Your task to perform on an android device: Show the shopping cart on walmart. Image 0: 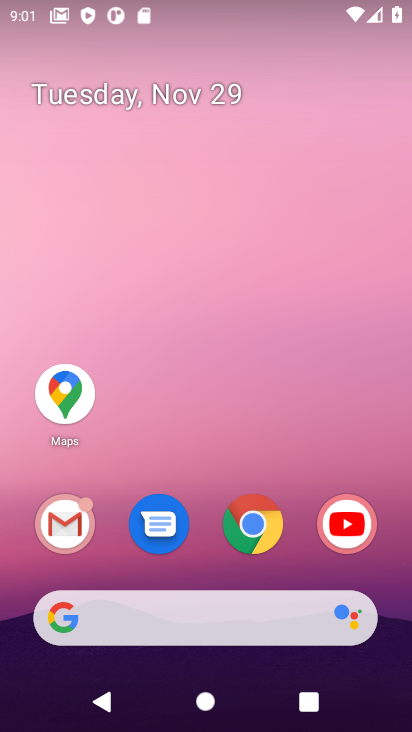
Step 0: click (258, 535)
Your task to perform on an android device: Show the shopping cart on walmart. Image 1: 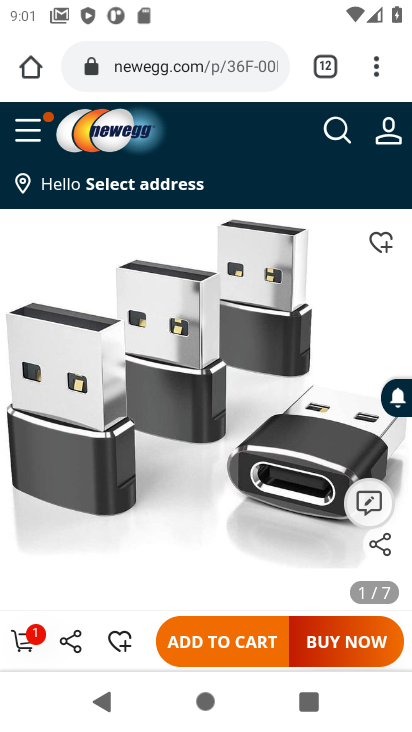
Step 1: click (192, 71)
Your task to perform on an android device: Show the shopping cart on walmart. Image 2: 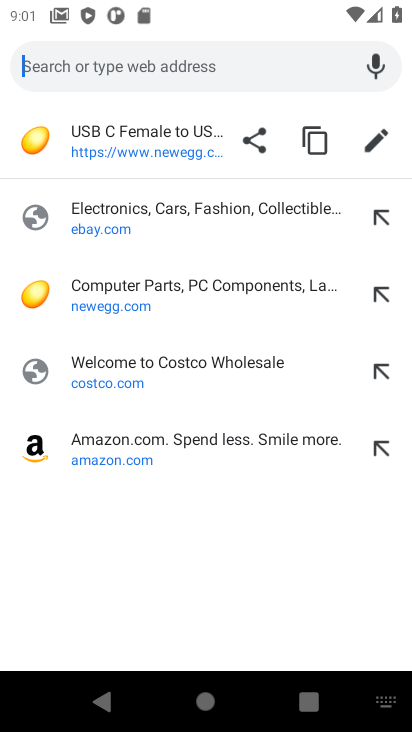
Step 2: type "walmart.com"
Your task to perform on an android device: Show the shopping cart on walmart. Image 3: 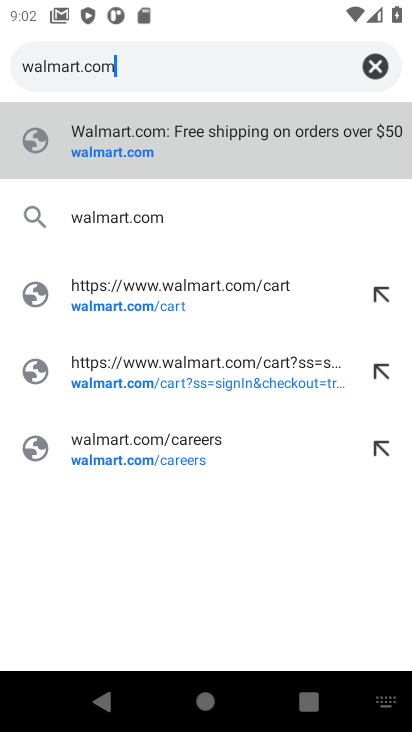
Step 3: click (111, 146)
Your task to perform on an android device: Show the shopping cart on walmart. Image 4: 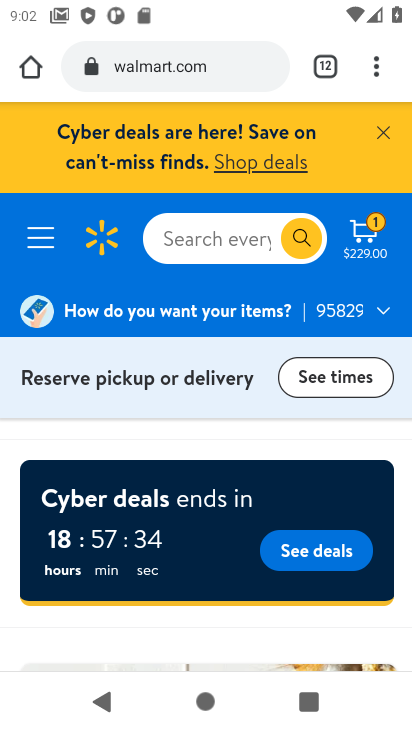
Step 4: click (352, 254)
Your task to perform on an android device: Show the shopping cart on walmart. Image 5: 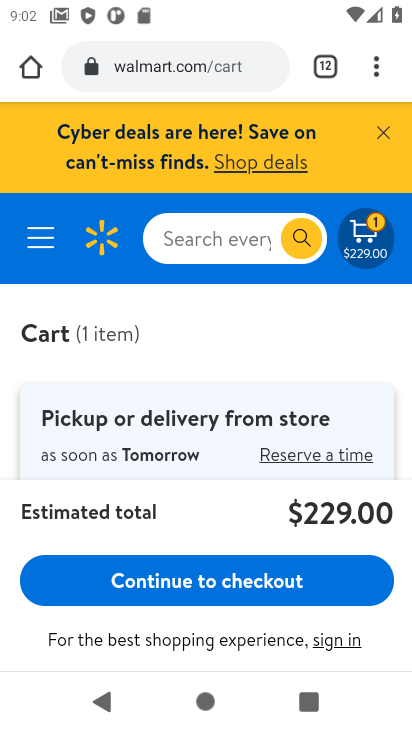
Step 5: task complete